Your task to perform on an android device: Open CNN.com Image 0: 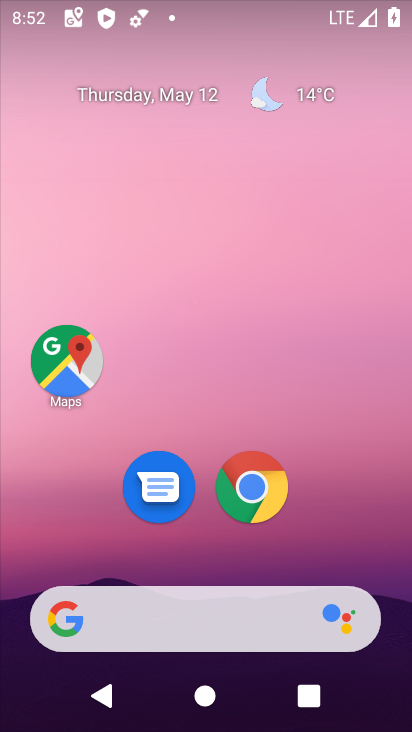
Step 0: click (260, 486)
Your task to perform on an android device: Open CNN.com Image 1: 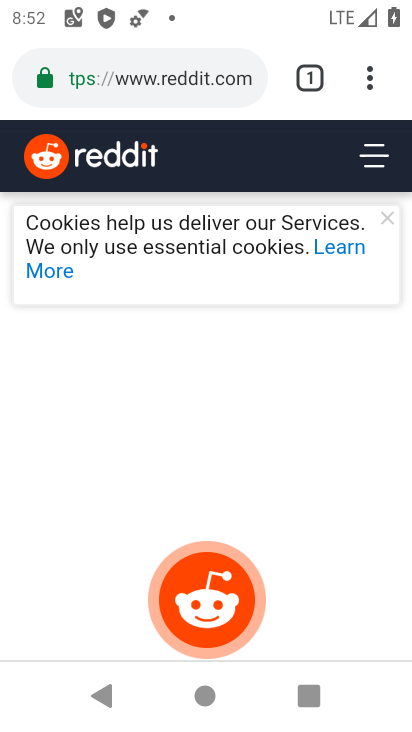
Step 1: click (173, 59)
Your task to perform on an android device: Open CNN.com Image 2: 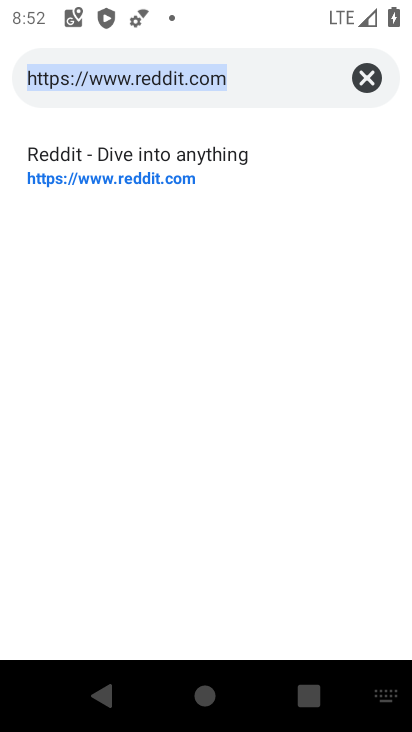
Step 2: click (370, 80)
Your task to perform on an android device: Open CNN.com Image 3: 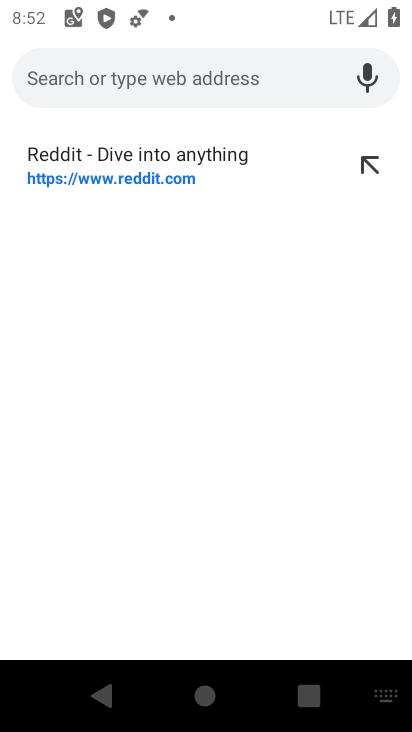
Step 3: type "CNN.com"
Your task to perform on an android device: Open CNN.com Image 4: 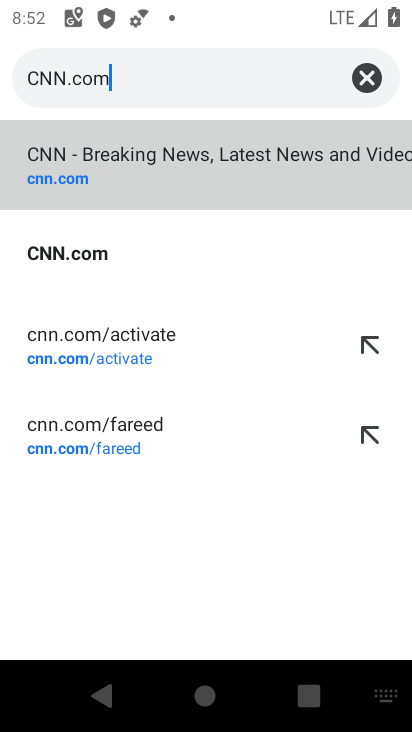
Step 4: type ""
Your task to perform on an android device: Open CNN.com Image 5: 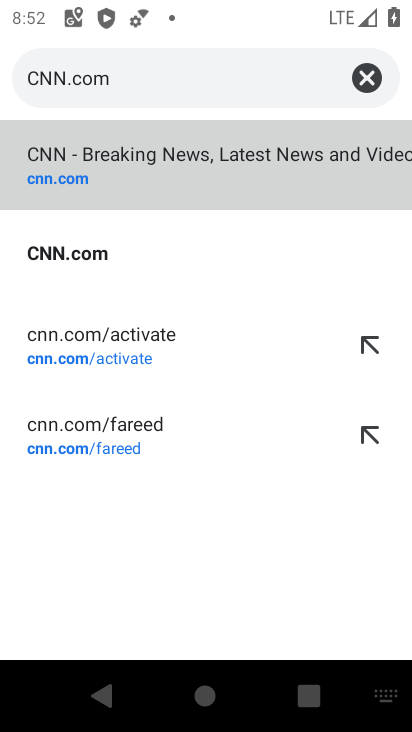
Step 5: click (120, 248)
Your task to perform on an android device: Open CNN.com Image 6: 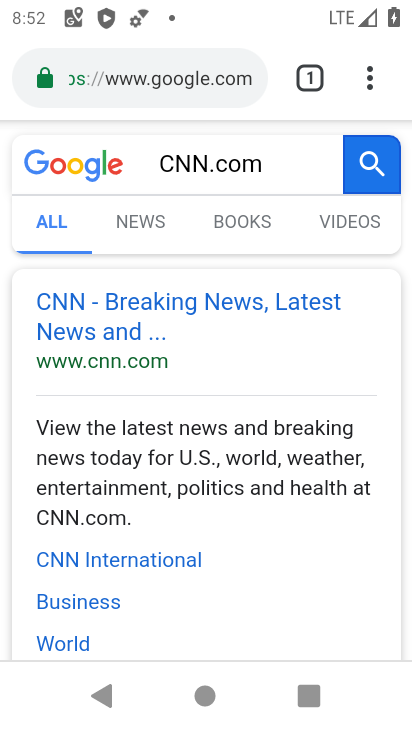
Step 6: click (104, 325)
Your task to perform on an android device: Open CNN.com Image 7: 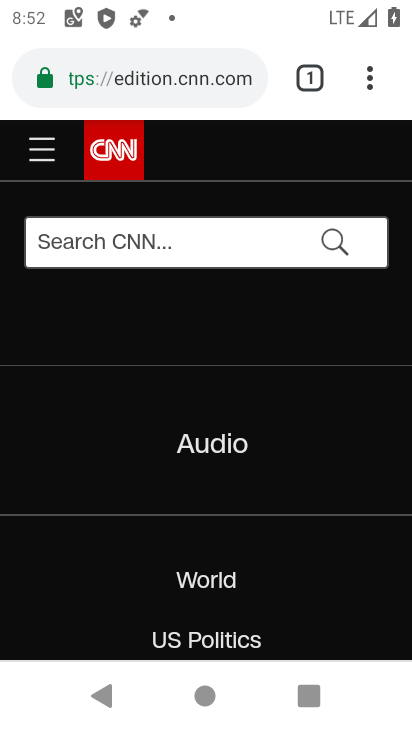
Step 7: task complete